Your task to perform on an android device: Open Maps and search for coffee Image 0: 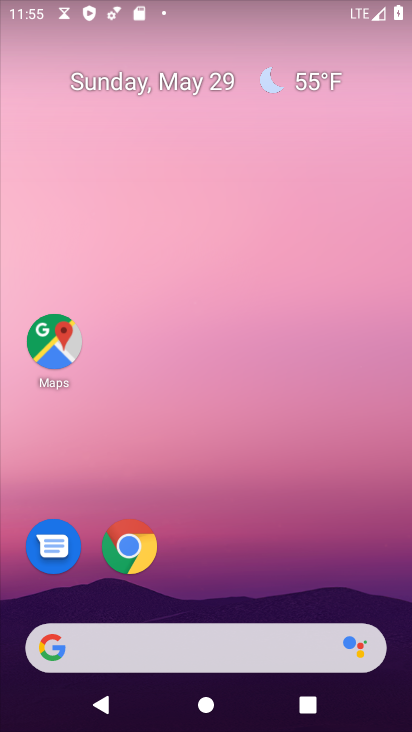
Step 0: press home button
Your task to perform on an android device: Open Maps and search for coffee Image 1: 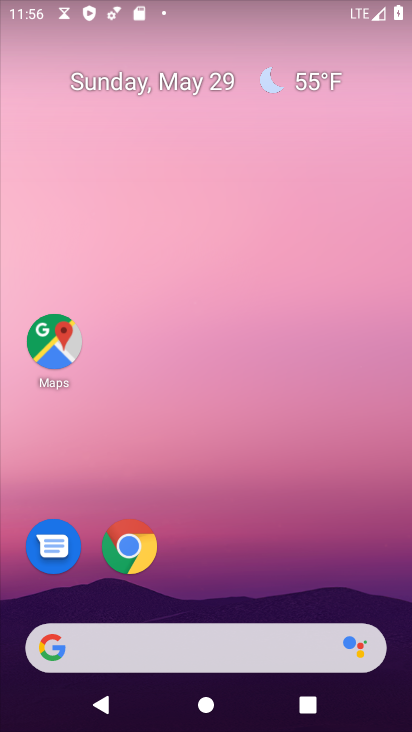
Step 1: click (32, 344)
Your task to perform on an android device: Open Maps and search for coffee Image 2: 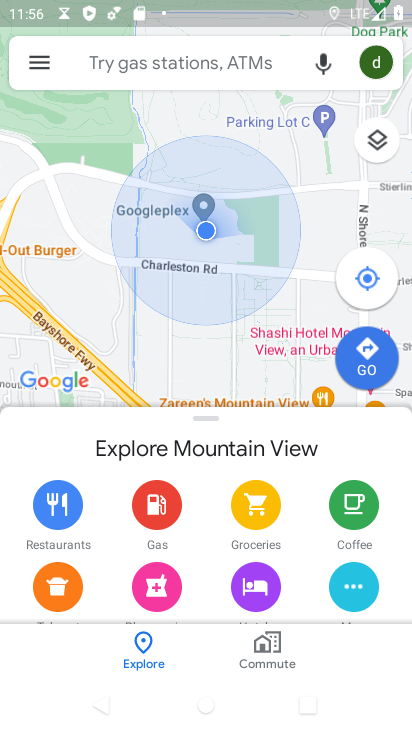
Step 2: click (215, 52)
Your task to perform on an android device: Open Maps and search for coffee Image 3: 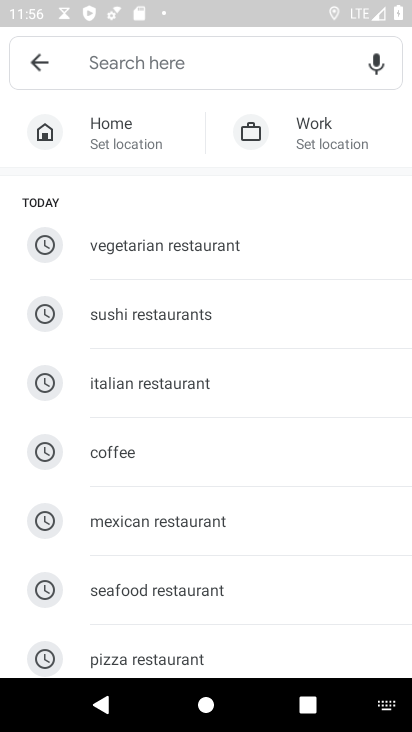
Step 3: click (151, 456)
Your task to perform on an android device: Open Maps and search for coffee Image 4: 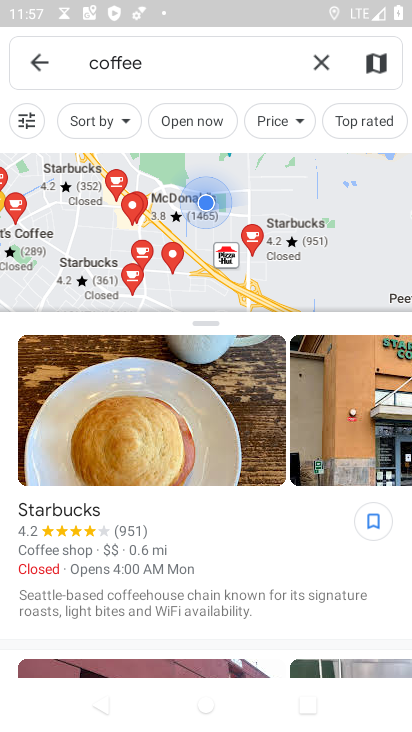
Step 4: task complete